Your task to perform on an android device: turn on location history Image 0: 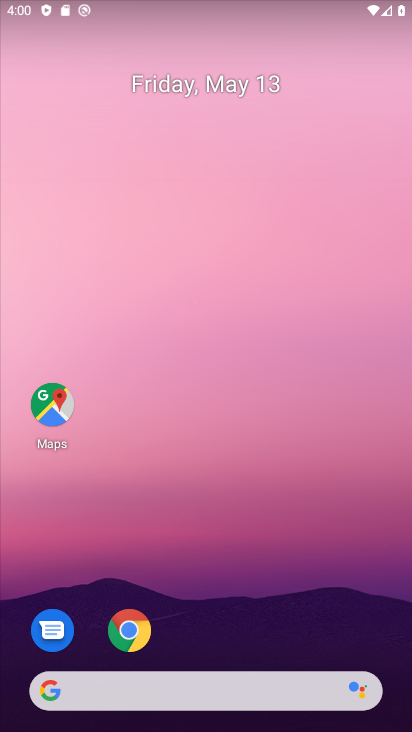
Step 0: drag from (213, 622) to (224, 198)
Your task to perform on an android device: turn on location history Image 1: 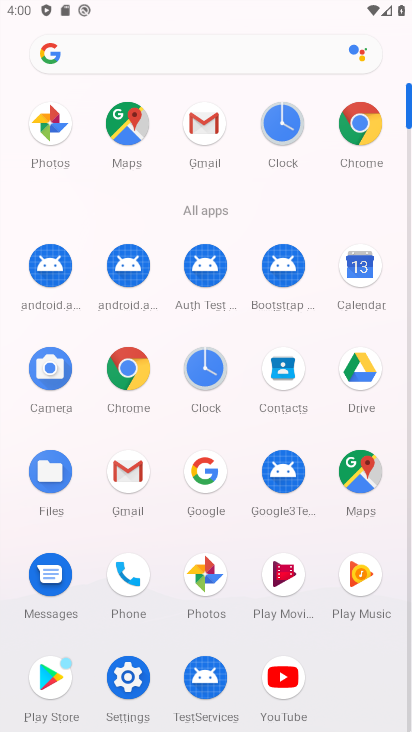
Step 1: click (127, 670)
Your task to perform on an android device: turn on location history Image 2: 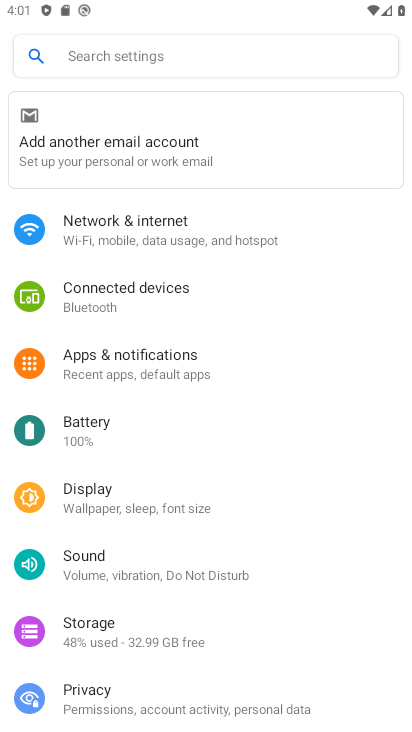
Step 2: drag from (184, 608) to (223, 322)
Your task to perform on an android device: turn on location history Image 3: 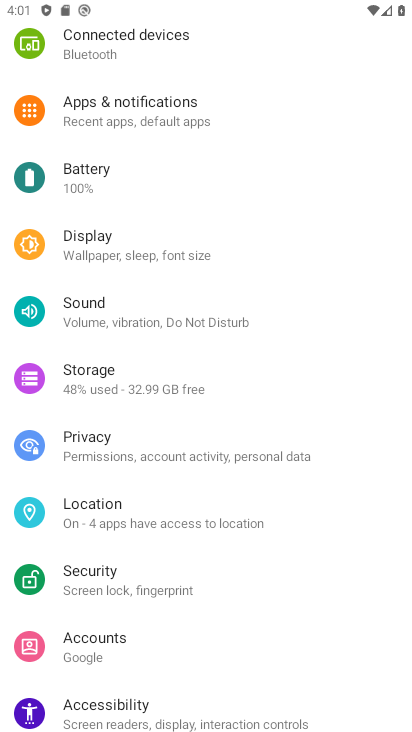
Step 3: click (116, 517)
Your task to perform on an android device: turn on location history Image 4: 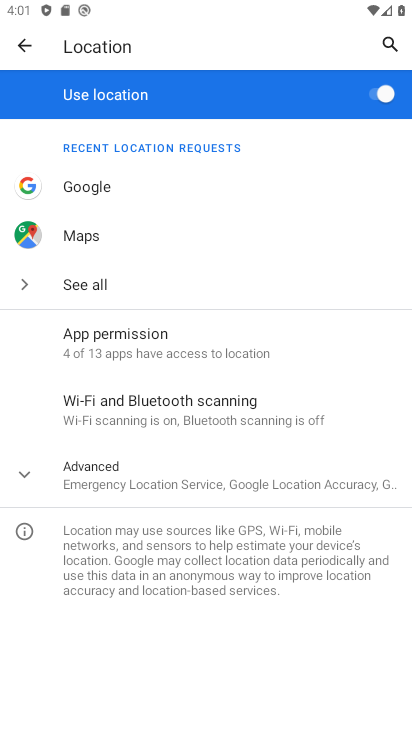
Step 4: click (89, 469)
Your task to perform on an android device: turn on location history Image 5: 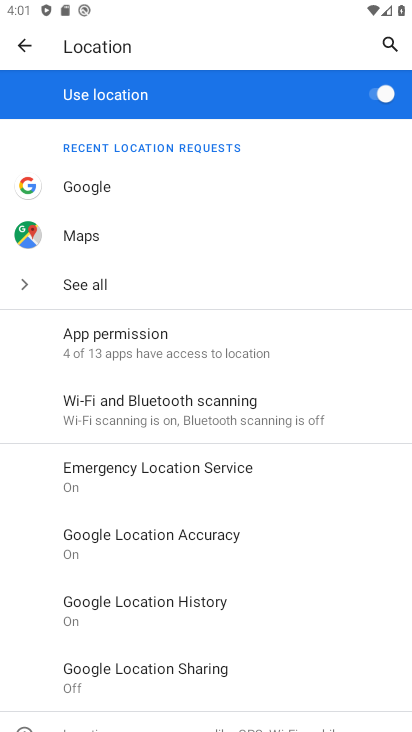
Step 5: click (149, 602)
Your task to perform on an android device: turn on location history Image 6: 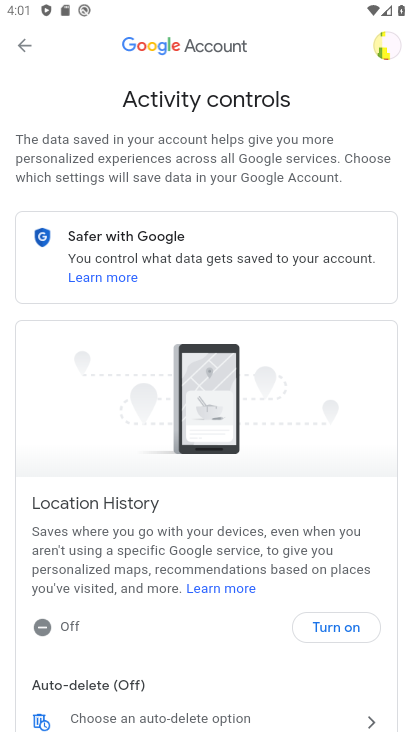
Step 6: click (319, 627)
Your task to perform on an android device: turn on location history Image 7: 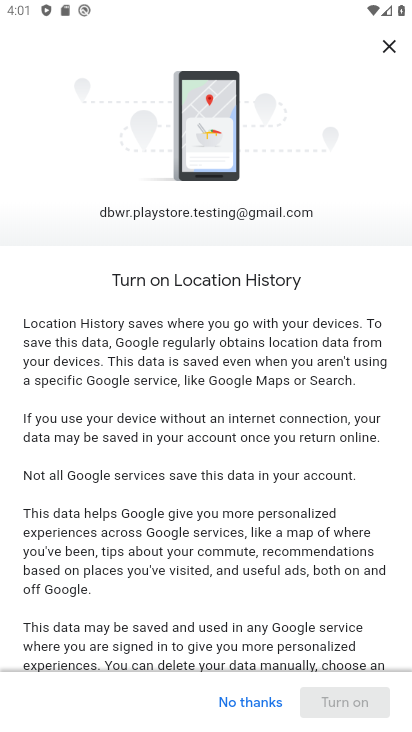
Step 7: drag from (276, 646) to (274, 193)
Your task to perform on an android device: turn on location history Image 8: 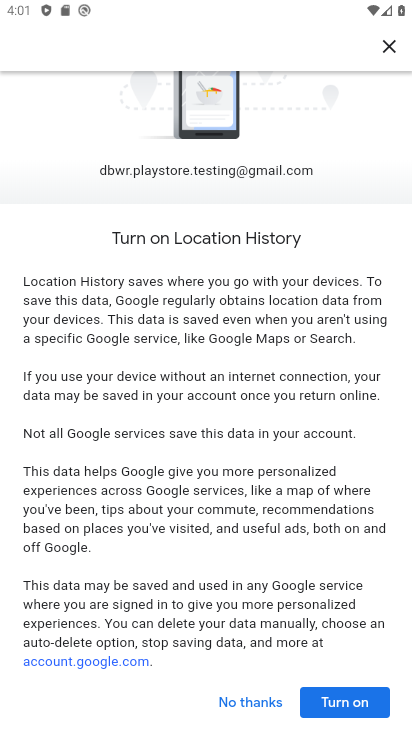
Step 8: click (348, 698)
Your task to perform on an android device: turn on location history Image 9: 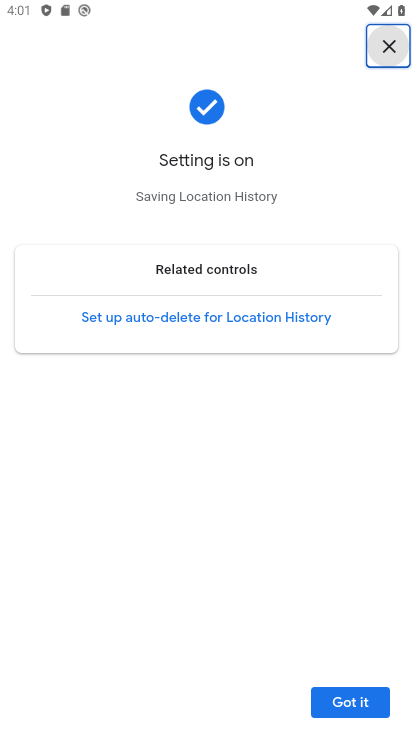
Step 9: task complete